Your task to perform on an android device: toggle data saver in the chrome app Image 0: 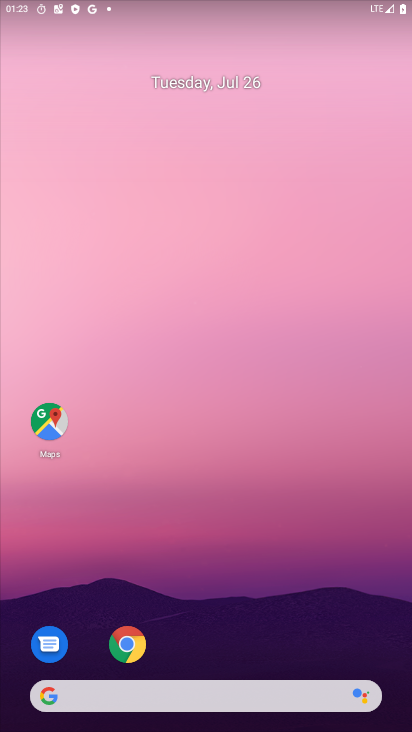
Step 0: click (126, 650)
Your task to perform on an android device: toggle data saver in the chrome app Image 1: 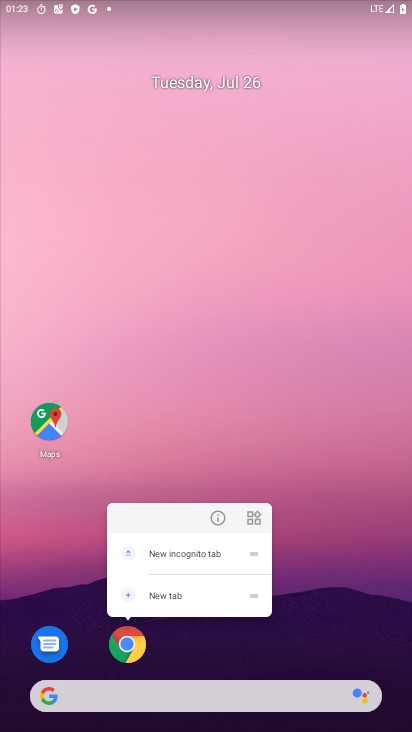
Step 1: click (134, 644)
Your task to perform on an android device: toggle data saver in the chrome app Image 2: 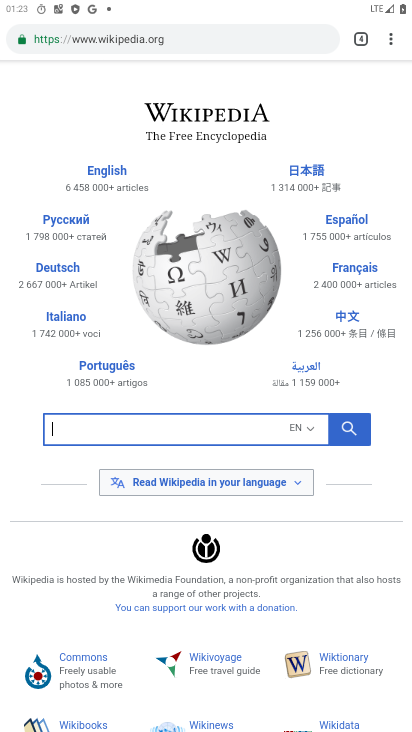
Step 2: drag from (403, 33) to (242, 481)
Your task to perform on an android device: toggle data saver in the chrome app Image 3: 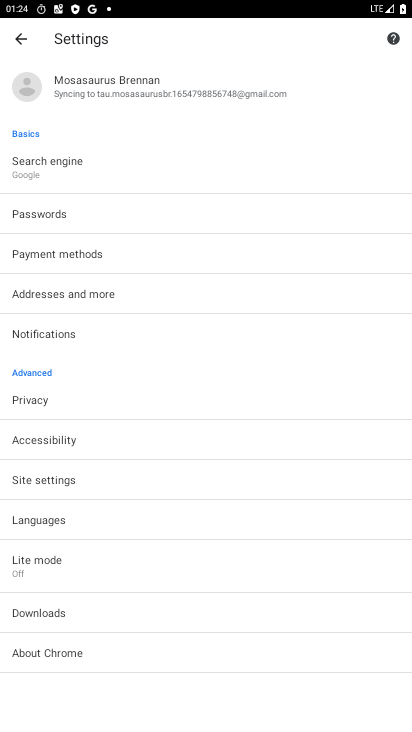
Step 3: click (41, 572)
Your task to perform on an android device: toggle data saver in the chrome app Image 4: 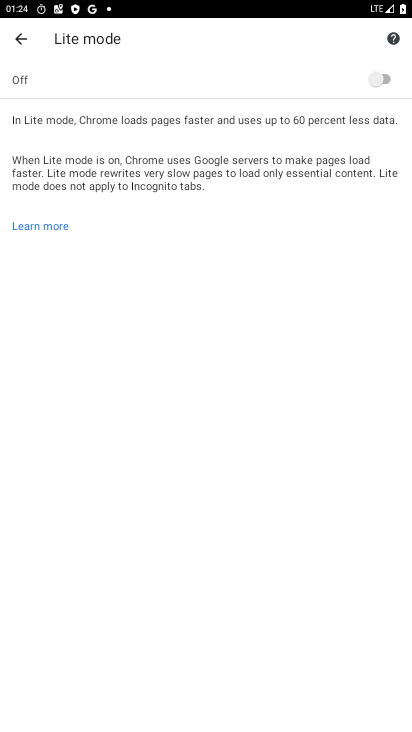
Step 4: click (380, 81)
Your task to perform on an android device: toggle data saver in the chrome app Image 5: 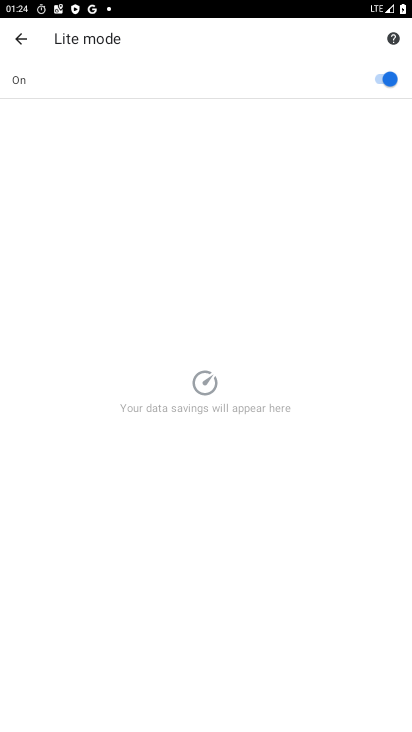
Step 5: task complete